Your task to perform on an android device: delete the emails in spam in the gmail app Image 0: 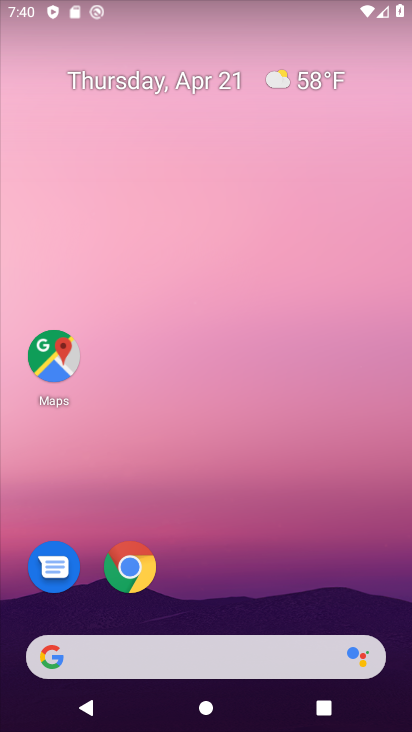
Step 0: drag from (230, 590) to (195, 37)
Your task to perform on an android device: delete the emails in spam in the gmail app Image 1: 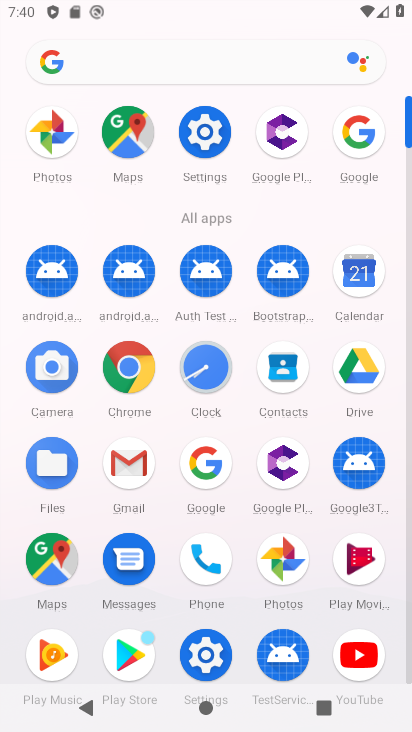
Step 1: click (126, 466)
Your task to perform on an android device: delete the emails in spam in the gmail app Image 2: 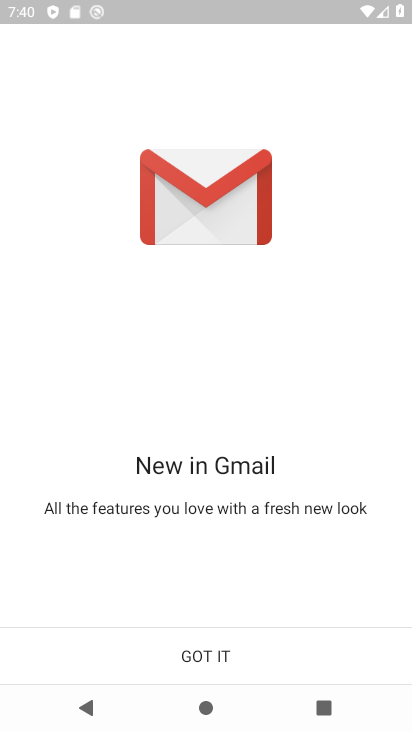
Step 2: click (192, 662)
Your task to perform on an android device: delete the emails in spam in the gmail app Image 3: 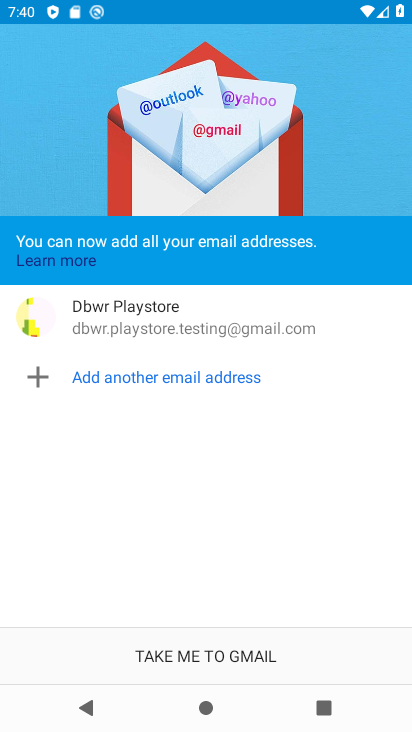
Step 3: click (192, 662)
Your task to perform on an android device: delete the emails in spam in the gmail app Image 4: 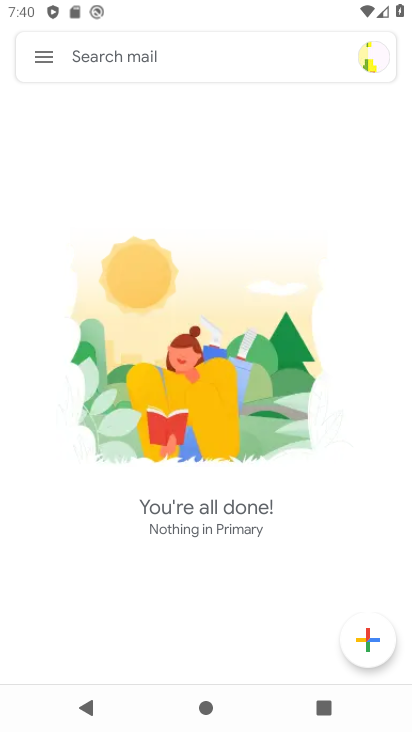
Step 4: click (49, 55)
Your task to perform on an android device: delete the emails in spam in the gmail app Image 5: 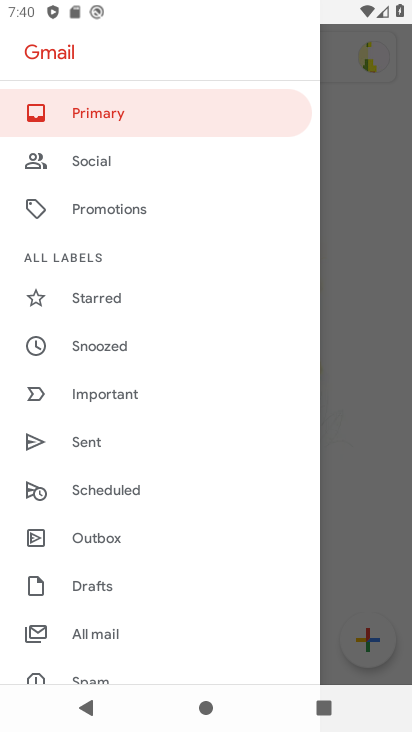
Step 5: drag from (155, 455) to (203, 357)
Your task to perform on an android device: delete the emails in spam in the gmail app Image 6: 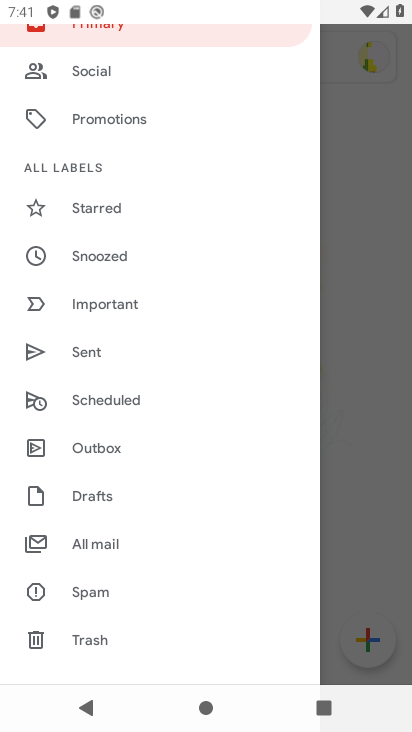
Step 6: click (97, 589)
Your task to perform on an android device: delete the emails in spam in the gmail app Image 7: 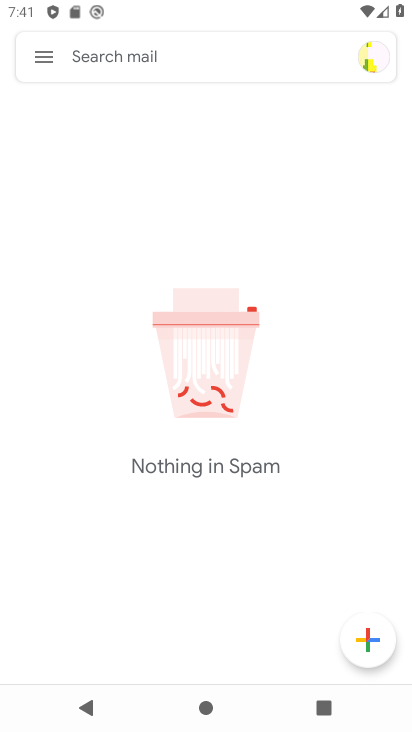
Step 7: task complete